Your task to perform on an android device: What's the weather going to be tomorrow? Image 0: 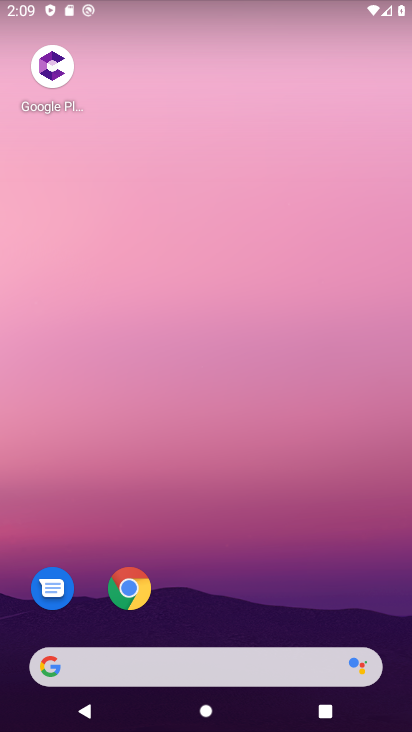
Step 0: drag from (298, 554) to (251, 52)
Your task to perform on an android device: What's the weather going to be tomorrow? Image 1: 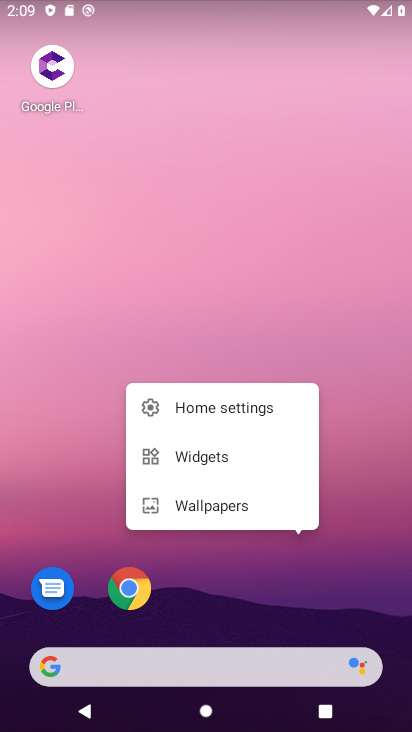
Step 1: click (351, 569)
Your task to perform on an android device: What's the weather going to be tomorrow? Image 2: 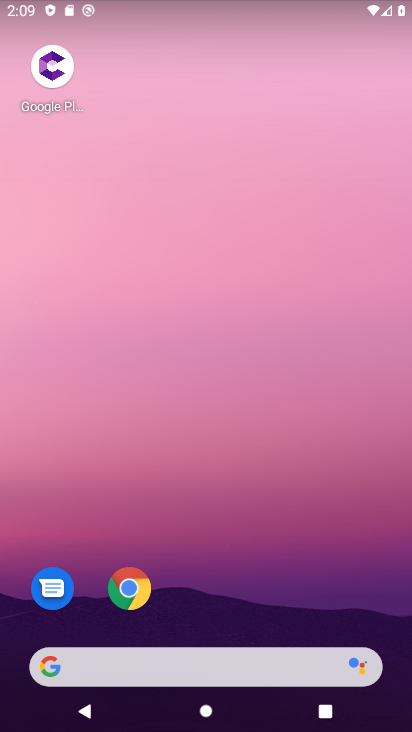
Step 2: drag from (319, 565) to (292, 0)
Your task to perform on an android device: What's the weather going to be tomorrow? Image 3: 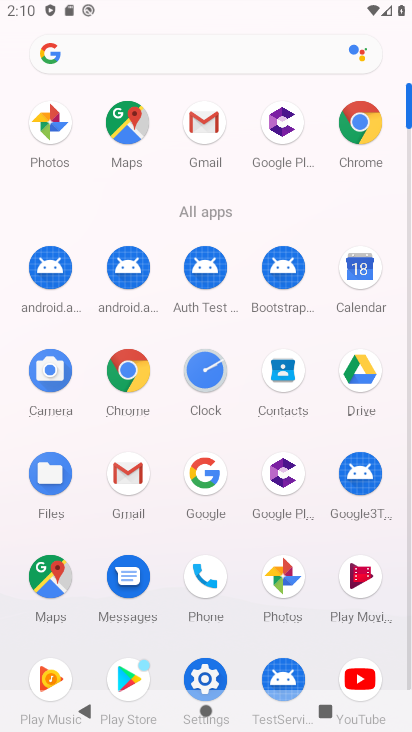
Step 3: click (359, 122)
Your task to perform on an android device: What's the weather going to be tomorrow? Image 4: 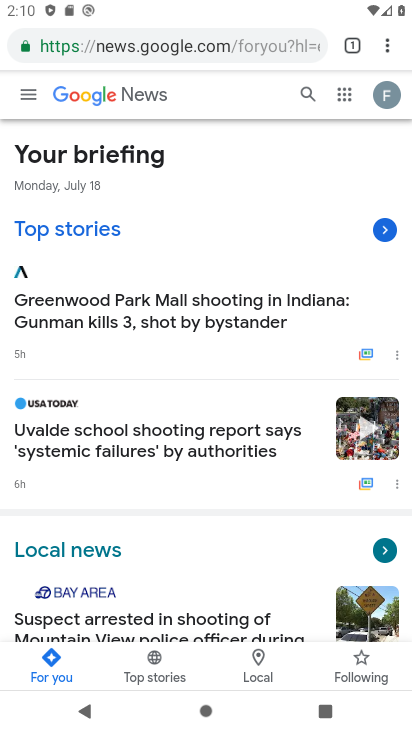
Step 4: click (192, 41)
Your task to perform on an android device: What's the weather going to be tomorrow? Image 5: 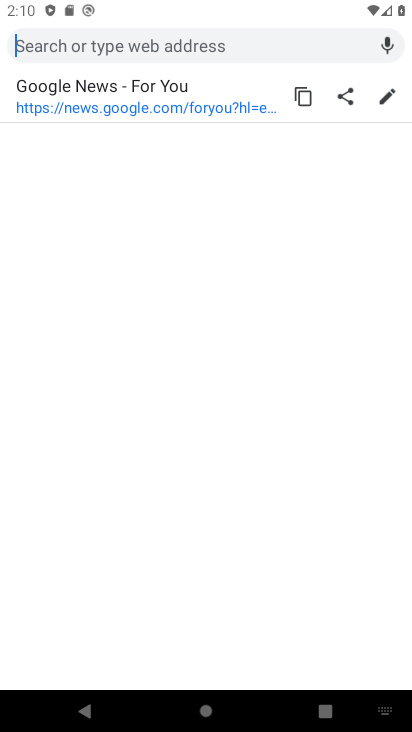
Step 5: type "weather"
Your task to perform on an android device: What's the weather going to be tomorrow? Image 6: 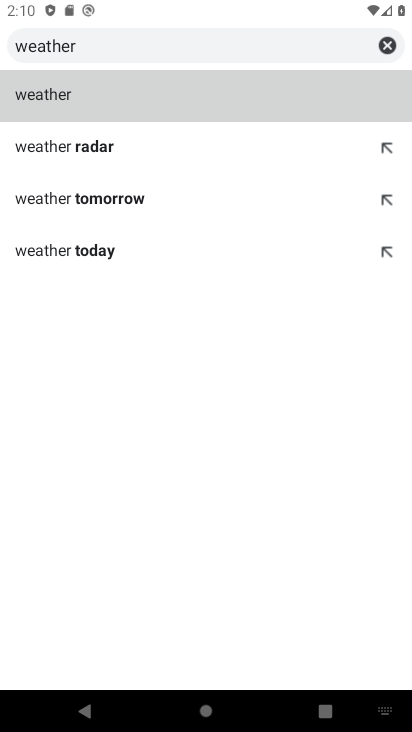
Step 6: click (53, 90)
Your task to perform on an android device: What's the weather going to be tomorrow? Image 7: 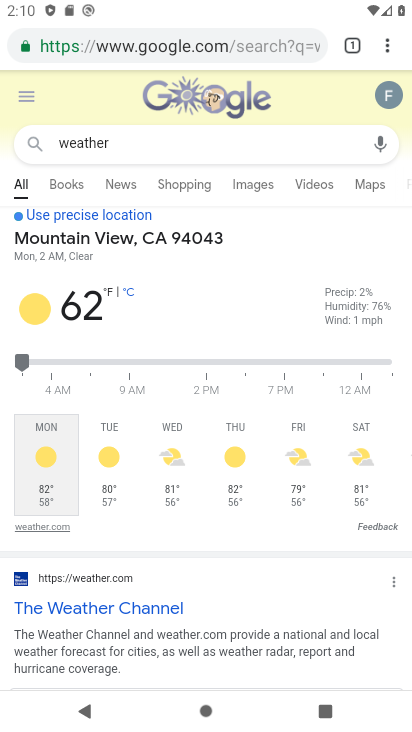
Step 7: click (101, 435)
Your task to perform on an android device: What's the weather going to be tomorrow? Image 8: 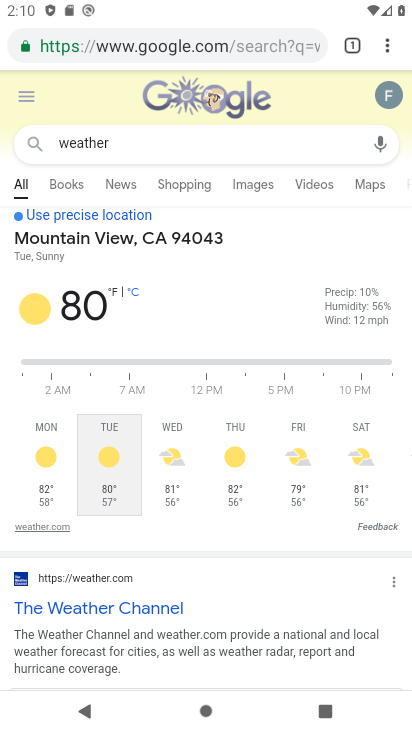
Step 8: task complete